Your task to perform on an android device: uninstall "Facebook Messenger" Image 0: 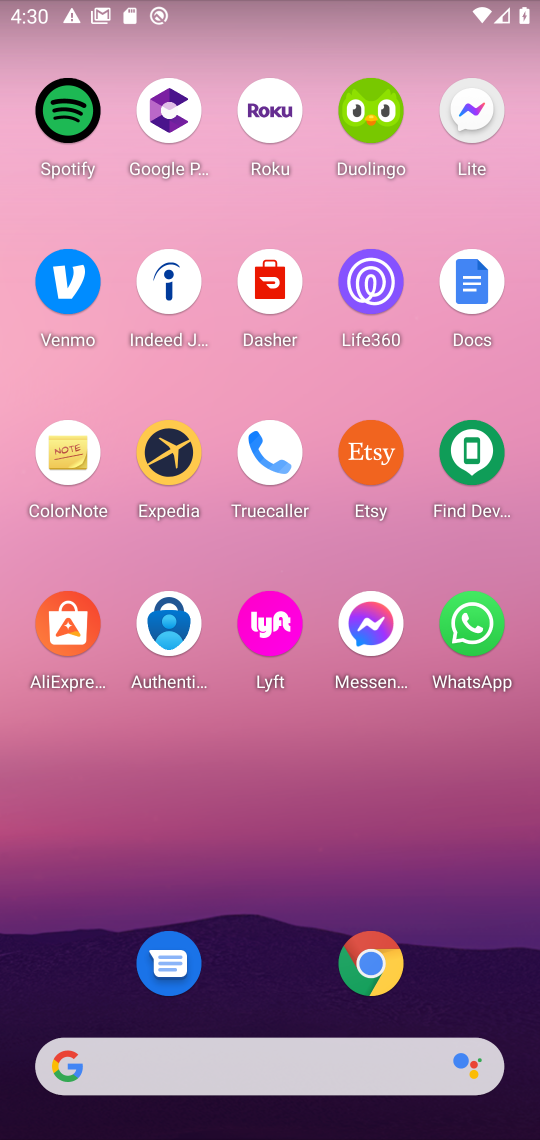
Step 0: drag from (261, 1029) to (341, 408)
Your task to perform on an android device: uninstall "Facebook Messenger" Image 1: 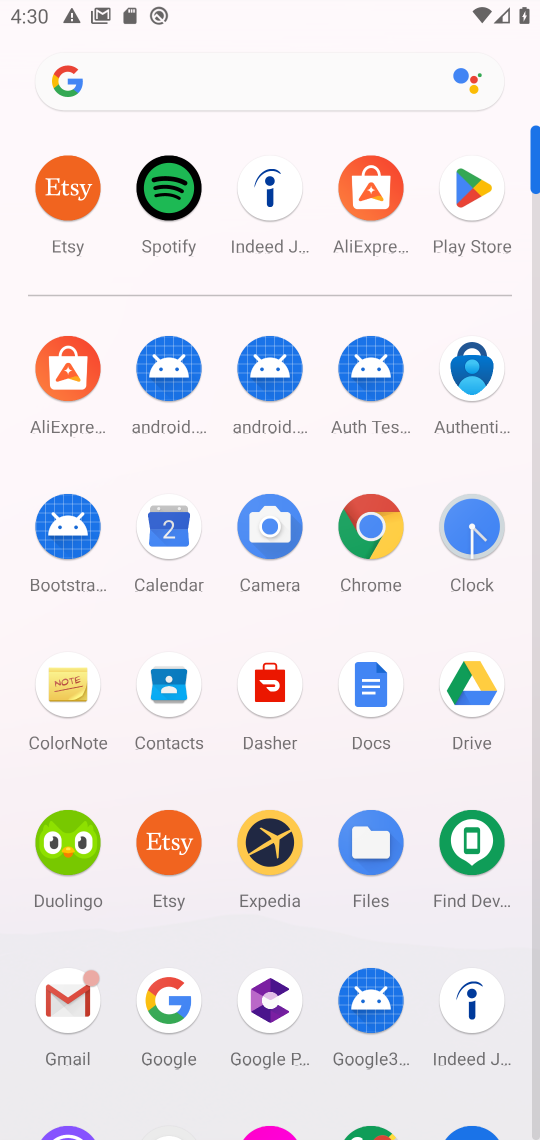
Step 1: click (466, 201)
Your task to perform on an android device: uninstall "Facebook Messenger" Image 2: 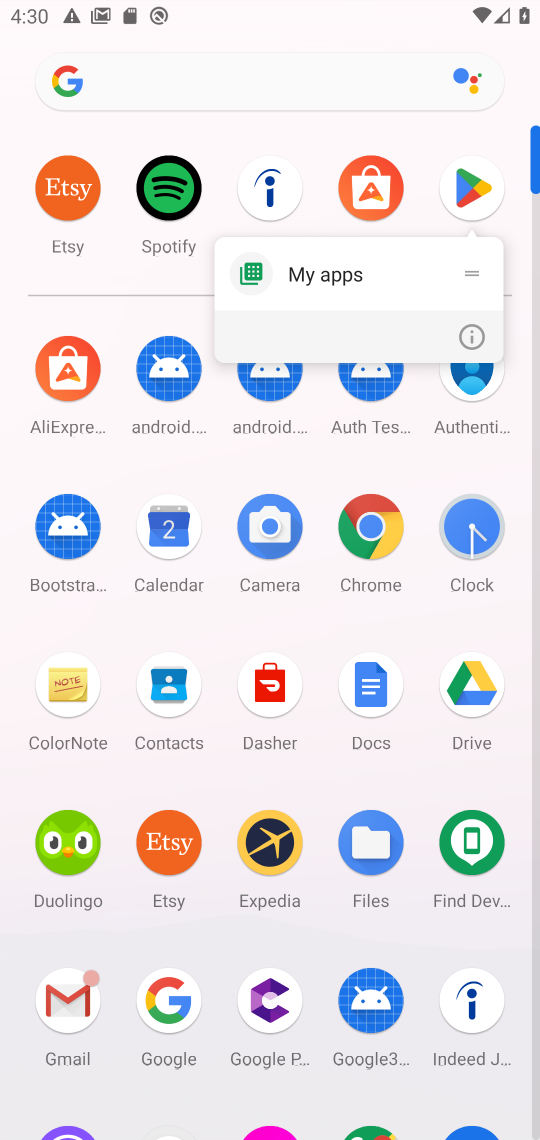
Step 2: click (463, 184)
Your task to perform on an android device: uninstall "Facebook Messenger" Image 3: 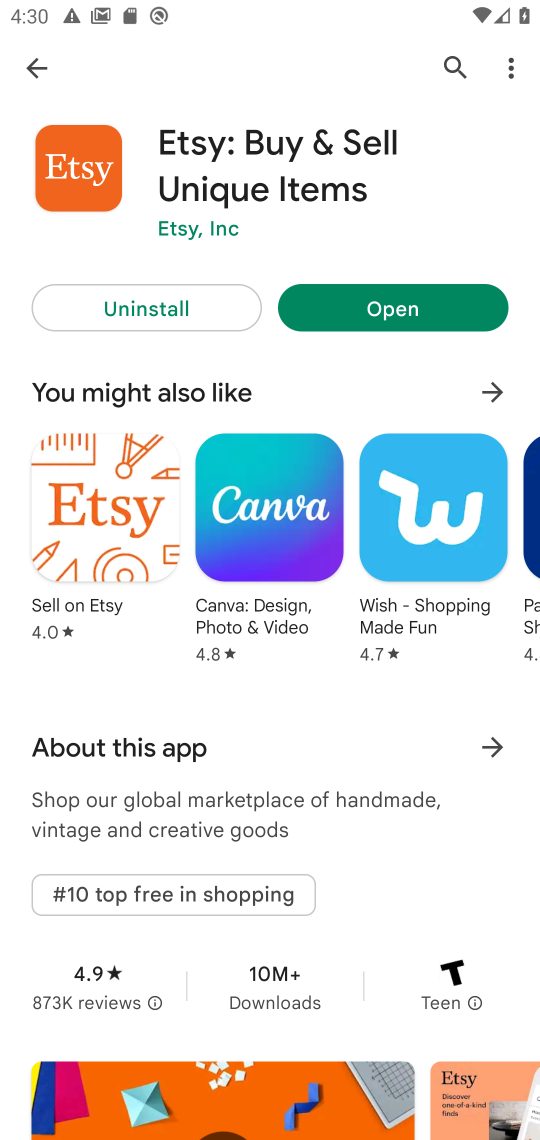
Step 3: click (445, 65)
Your task to perform on an android device: uninstall "Facebook Messenger" Image 4: 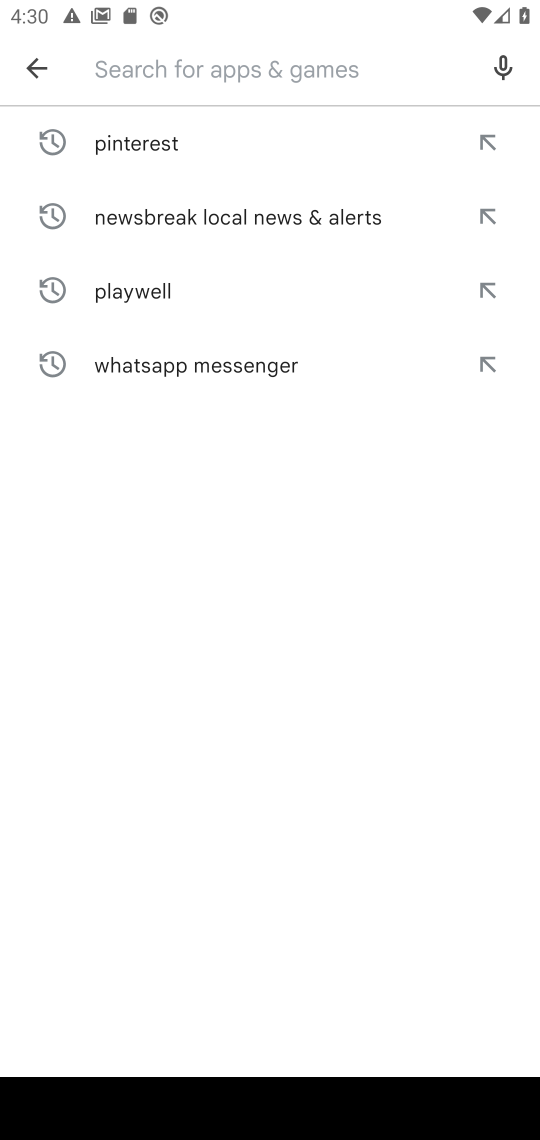
Step 4: click (170, 75)
Your task to perform on an android device: uninstall "Facebook Messenger" Image 5: 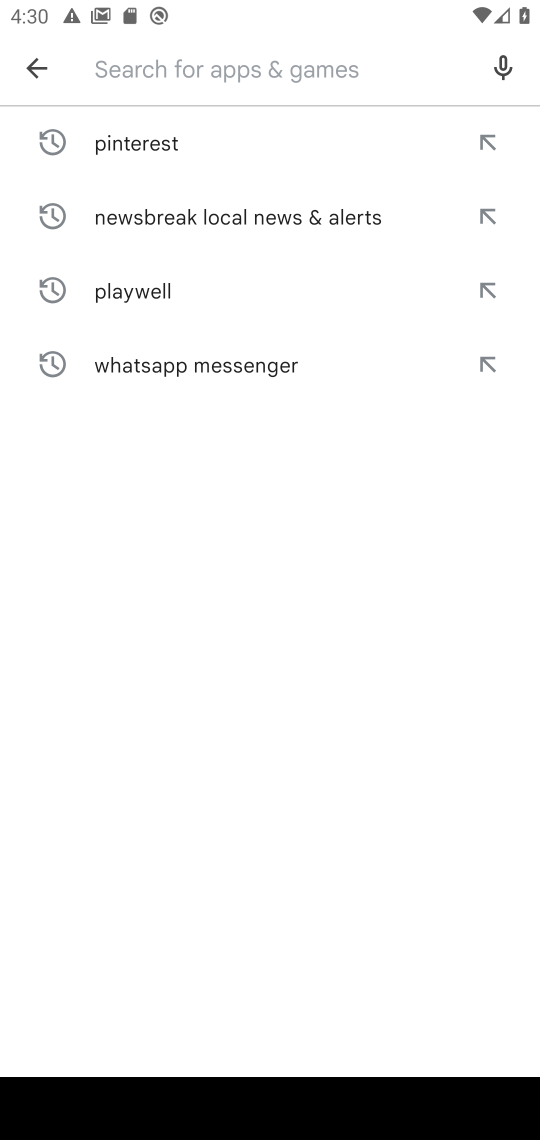
Step 5: click (121, 67)
Your task to perform on an android device: uninstall "Facebook Messenger" Image 6: 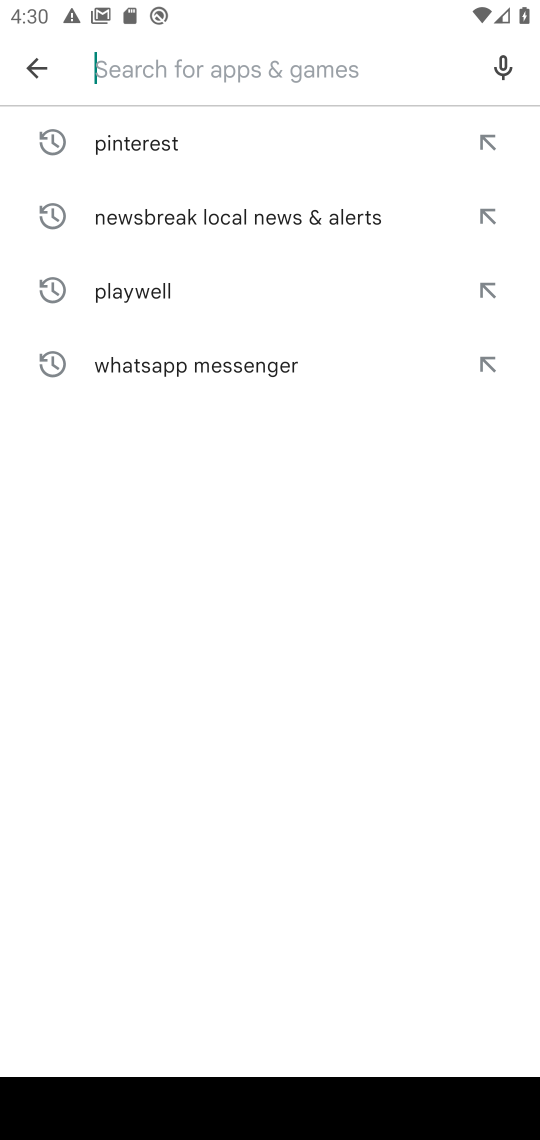
Step 6: type "Facebook Messenger"
Your task to perform on an android device: uninstall "Facebook Messenger" Image 7: 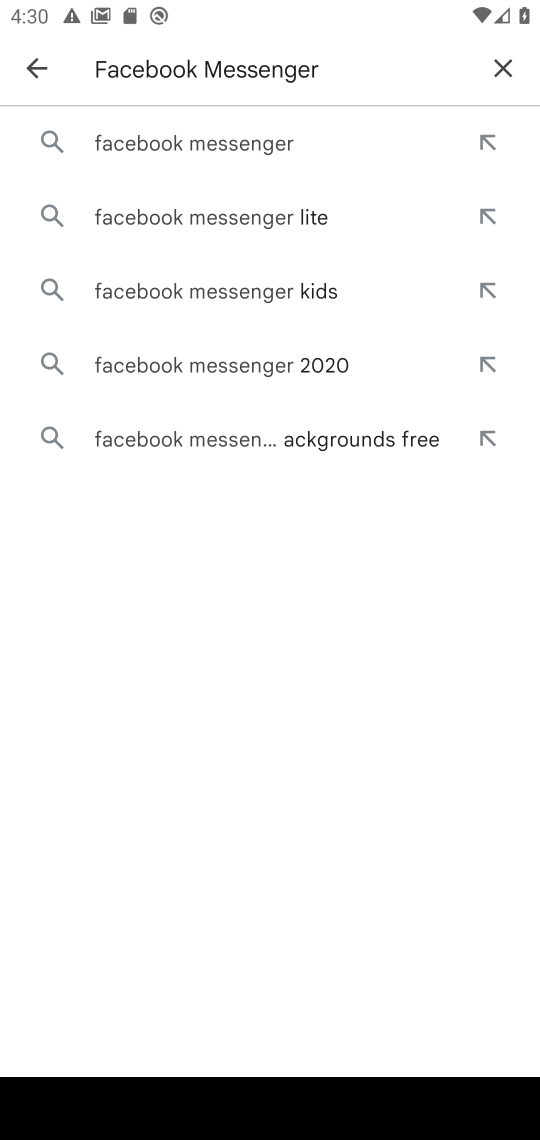
Step 7: click (215, 151)
Your task to perform on an android device: uninstall "Facebook Messenger" Image 8: 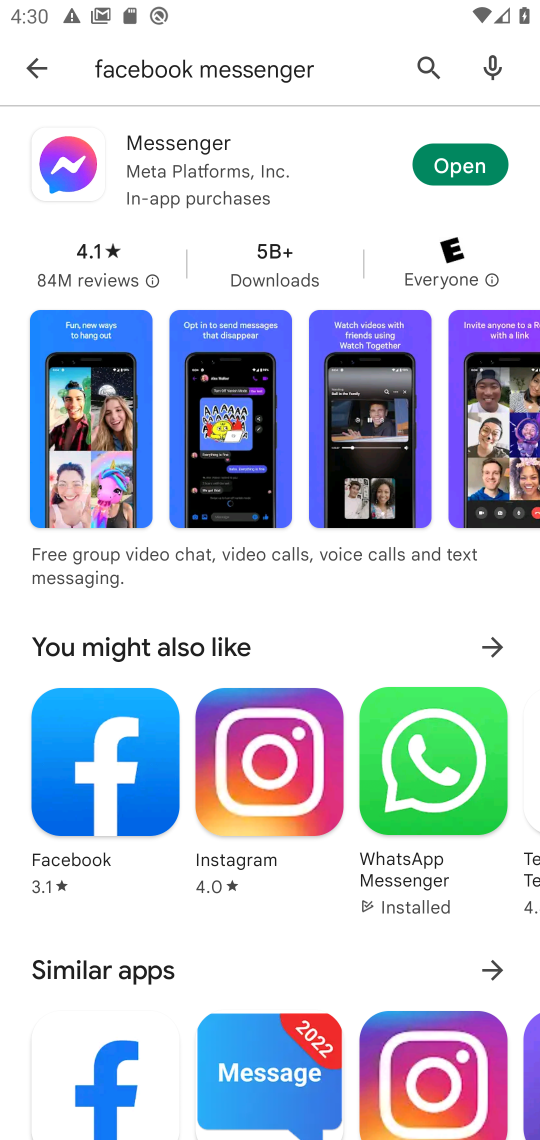
Step 8: click (226, 166)
Your task to perform on an android device: uninstall "Facebook Messenger" Image 9: 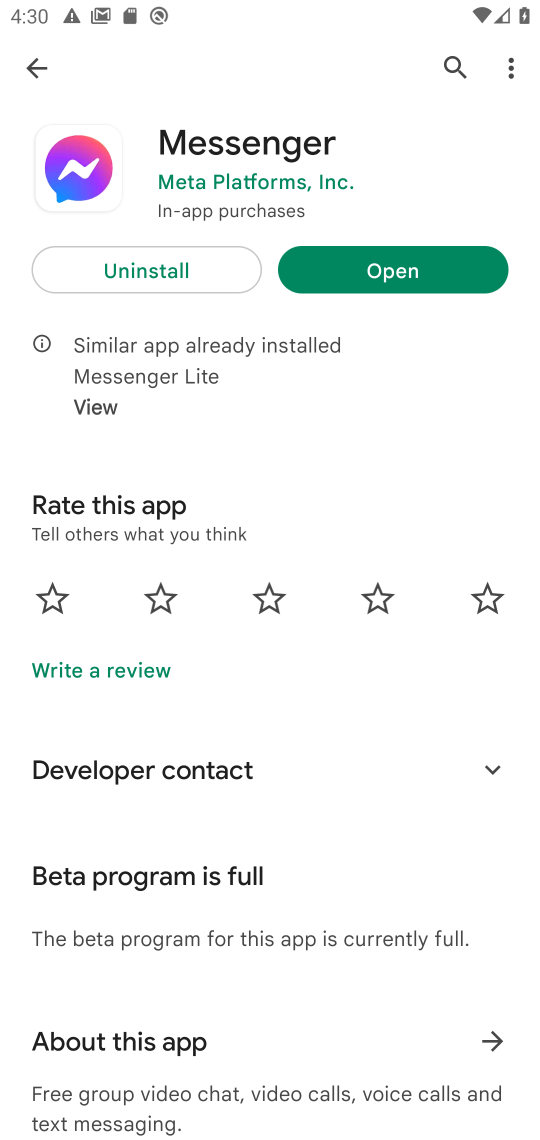
Step 9: click (164, 265)
Your task to perform on an android device: uninstall "Facebook Messenger" Image 10: 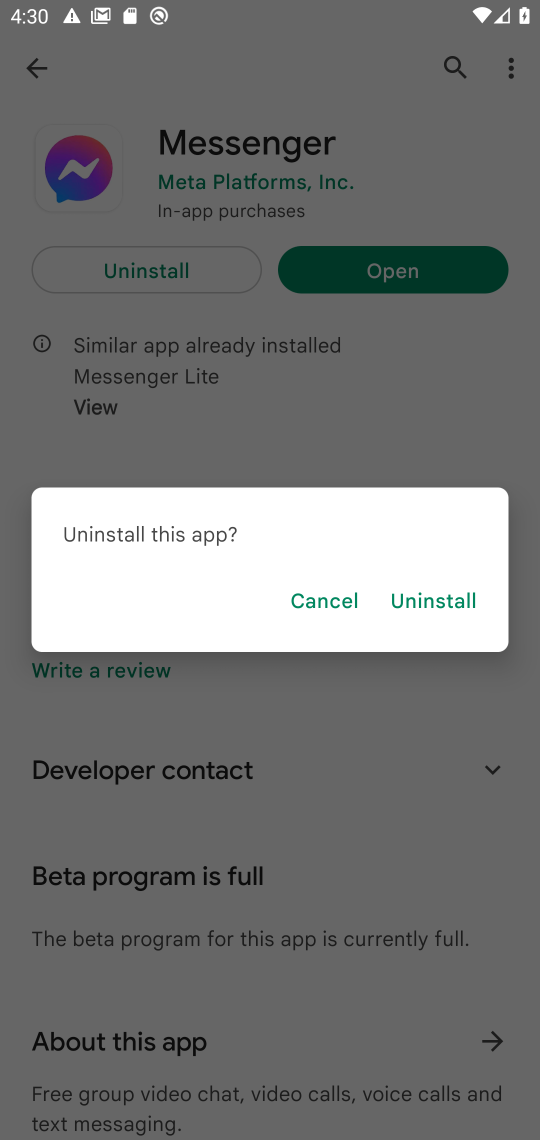
Step 10: click (452, 605)
Your task to perform on an android device: uninstall "Facebook Messenger" Image 11: 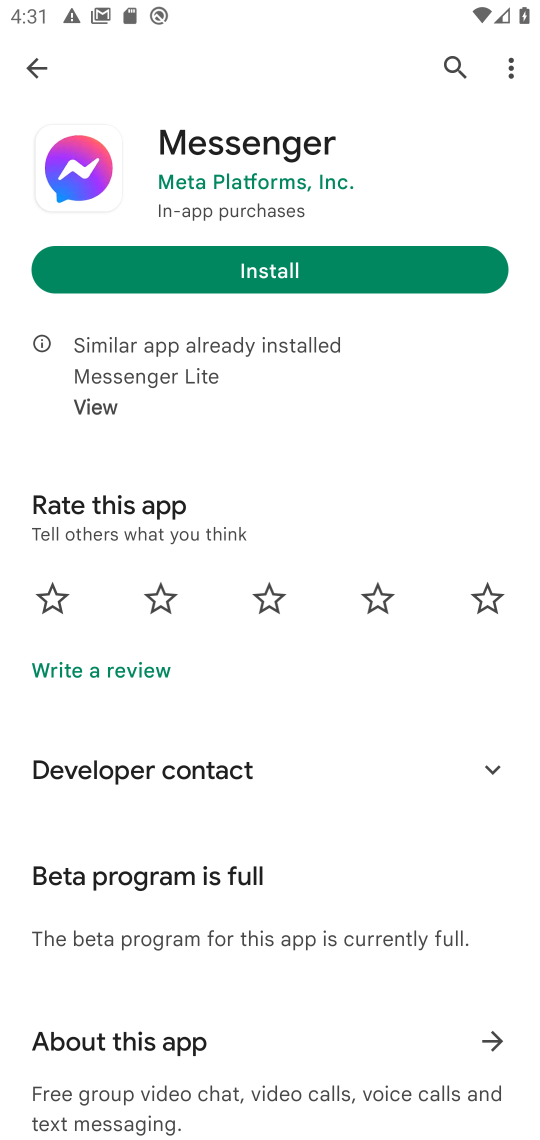
Step 11: task complete